Your task to perform on an android device: Open the calendar app, open the side menu, and click the "Day" option Image 0: 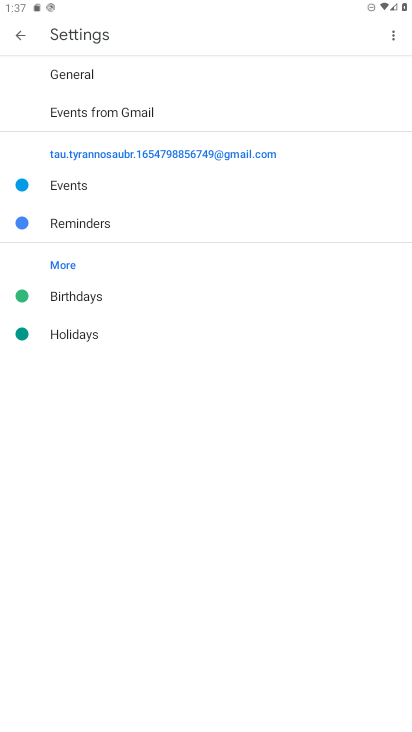
Step 0: press home button
Your task to perform on an android device: Open the calendar app, open the side menu, and click the "Day" option Image 1: 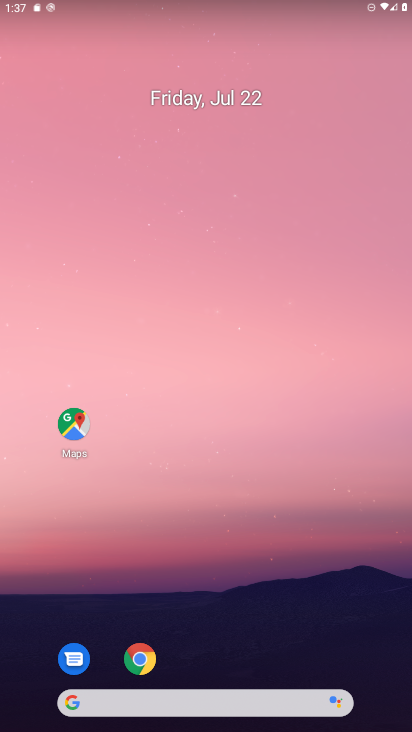
Step 1: drag from (189, 702) to (171, 186)
Your task to perform on an android device: Open the calendar app, open the side menu, and click the "Day" option Image 2: 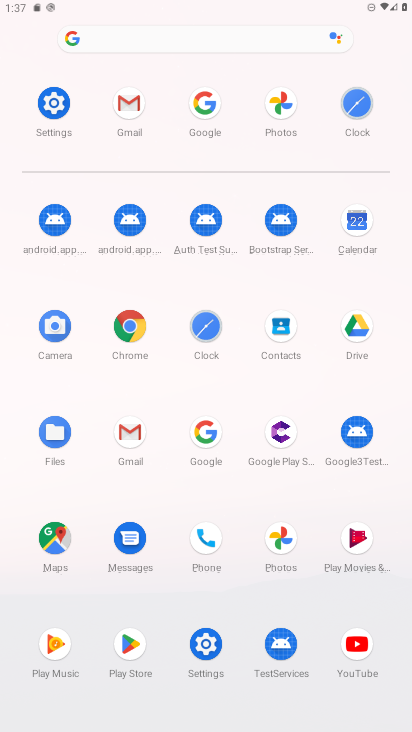
Step 2: click (359, 218)
Your task to perform on an android device: Open the calendar app, open the side menu, and click the "Day" option Image 3: 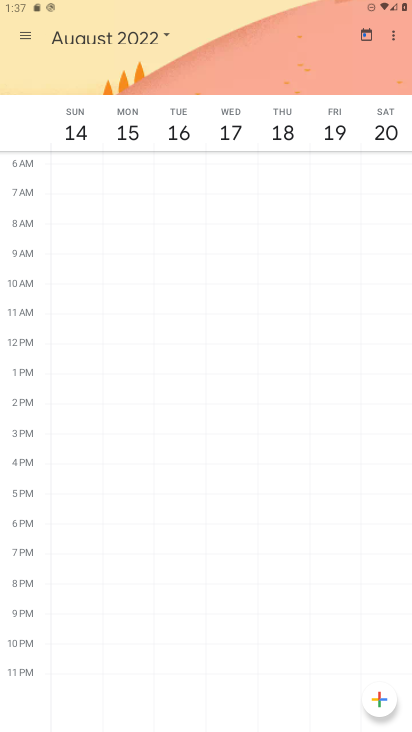
Step 3: click (25, 33)
Your task to perform on an android device: Open the calendar app, open the side menu, and click the "Day" option Image 4: 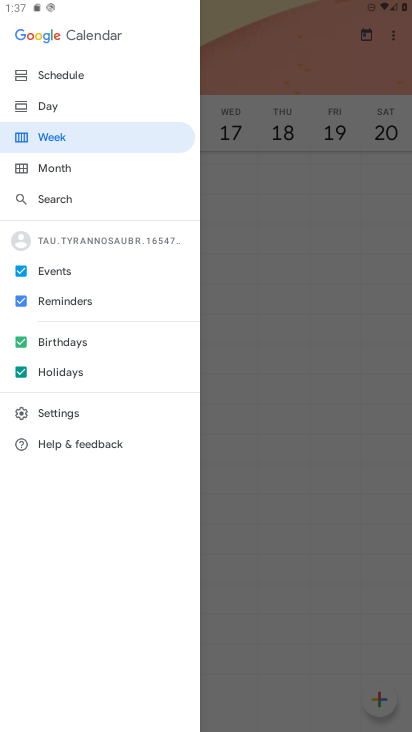
Step 4: click (44, 97)
Your task to perform on an android device: Open the calendar app, open the side menu, and click the "Day" option Image 5: 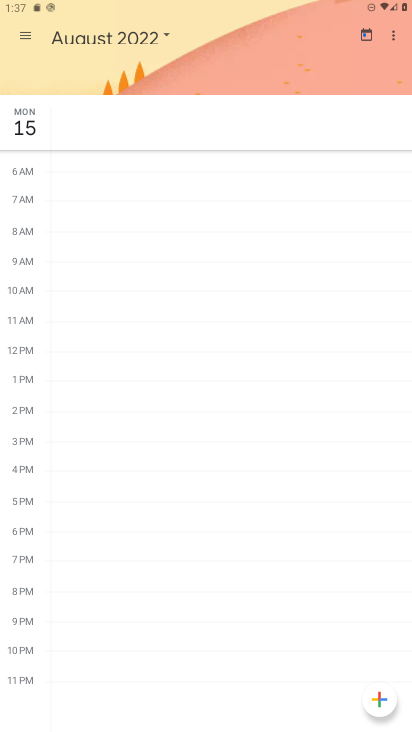
Step 5: task complete